Your task to perform on an android device: toggle javascript in the chrome app Image 0: 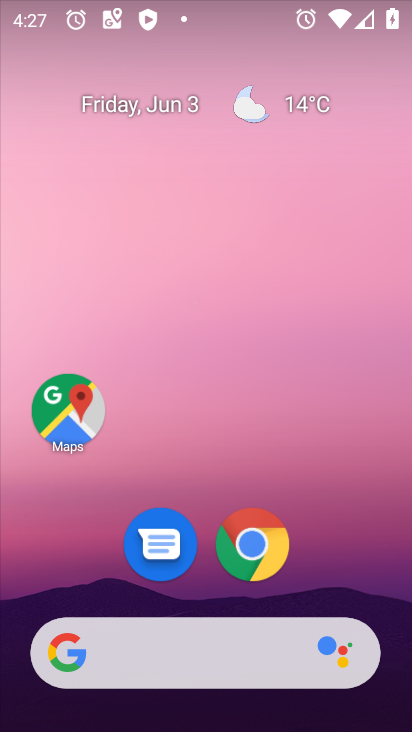
Step 0: click (245, 542)
Your task to perform on an android device: toggle javascript in the chrome app Image 1: 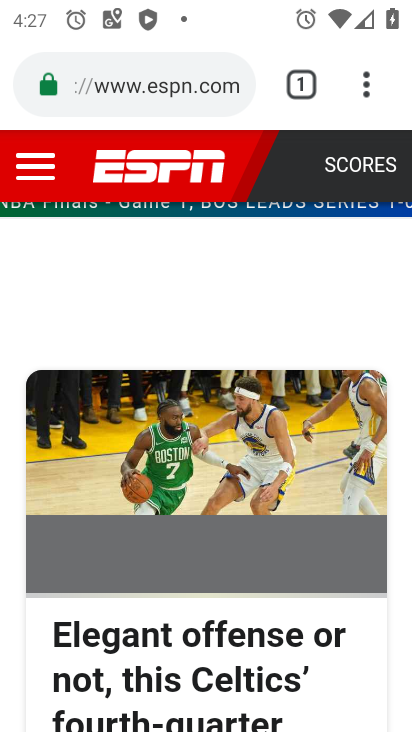
Step 1: click (365, 93)
Your task to perform on an android device: toggle javascript in the chrome app Image 2: 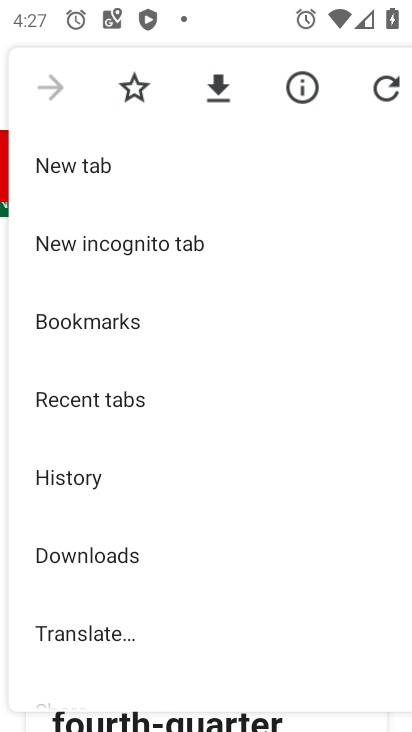
Step 2: drag from (247, 585) to (276, 132)
Your task to perform on an android device: toggle javascript in the chrome app Image 3: 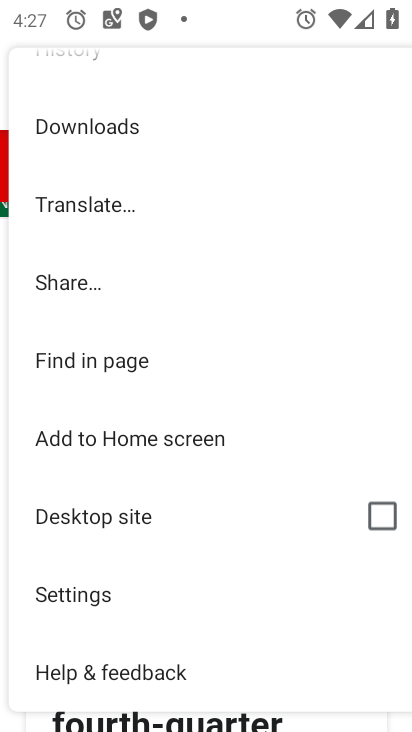
Step 3: click (75, 584)
Your task to perform on an android device: toggle javascript in the chrome app Image 4: 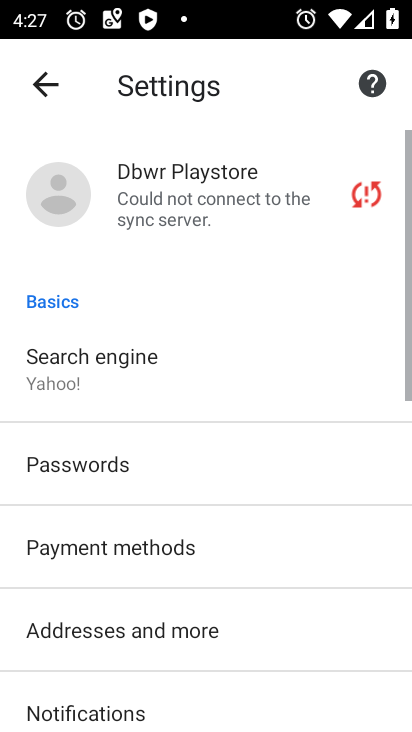
Step 4: drag from (254, 604) to (236, 192)
Your task to perform on an android device: toggle javascript in the chrome app Image 5: 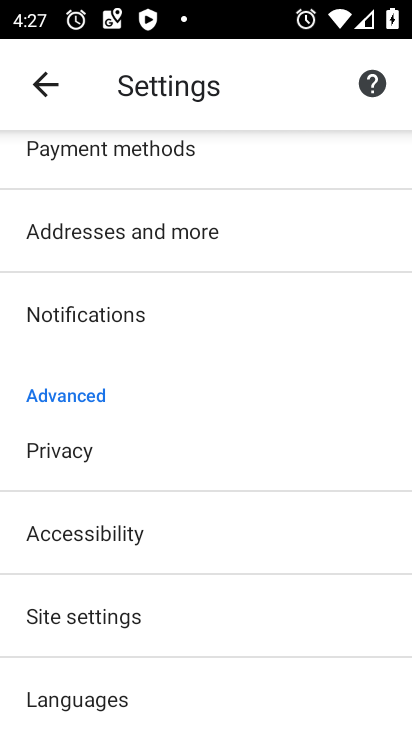
Step 5: click (70, 620)
Your task to perform on an android device: toggle javascript in the chrome app Image 6: 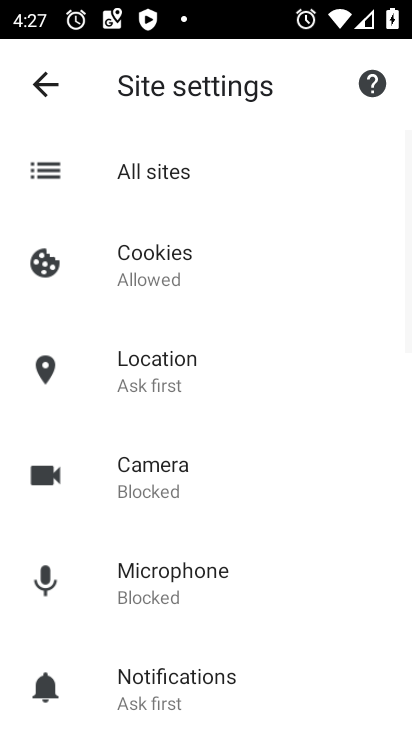
Step 6: drag from (285, 663) to (250, 133)
Your task to perform on an android device: toggle javascript in the chrome app Image 7: 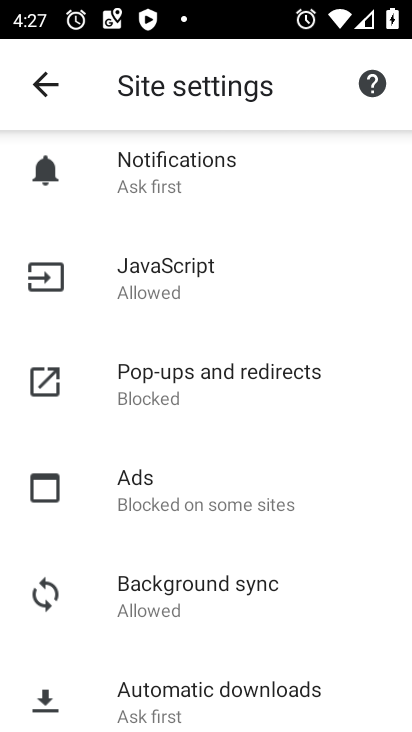
Step 7: click (165, 275)
Your task to perform on an android device: toggle javascript in the chrome app Image 8: 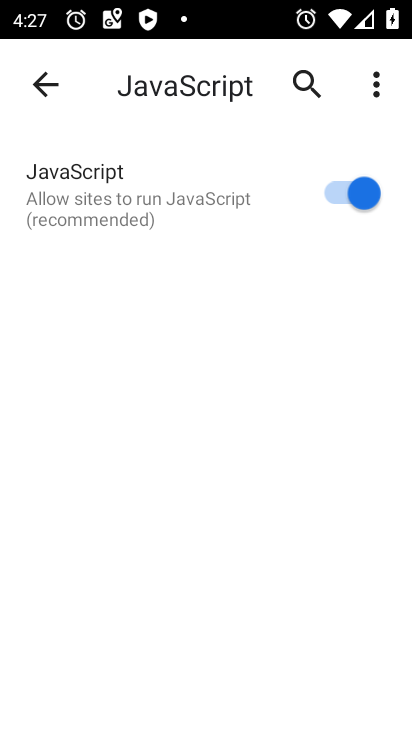
Step 8: click (331, 182)
Your task to perform on an android device: toggle javascript in the chrome app Image 9: 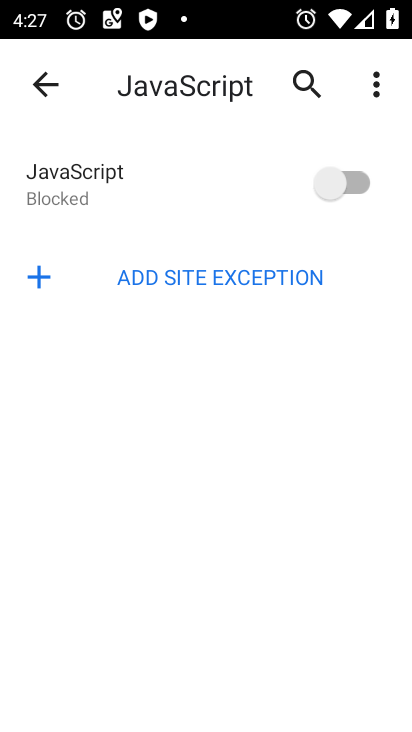
Step 9: task complete